Your task to perform on an android device: empty trash in google photos Image 0: 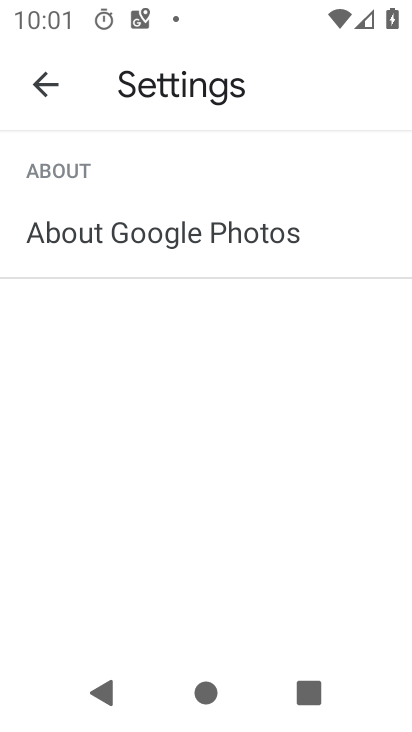
Step 0: press home button
Your task to perform on an android device: empty trash in google photos Image 1: 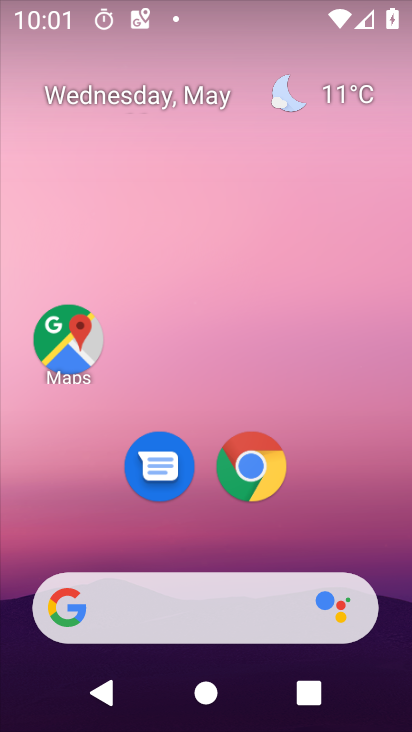
Step 1: drag from (233, 493) to (230, 141)
Your task to perform on an android device: empty trash in google photos Image 2: 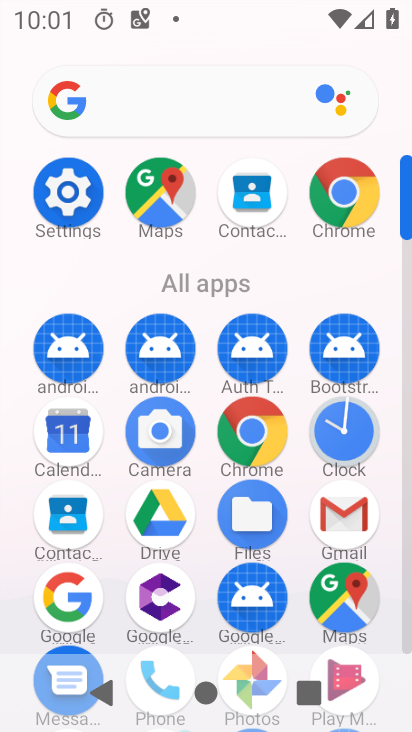
Step 2: drag from (292, 623) to (295, 278)
Your task to perform on an android device: empty trash in google photos Image 3: 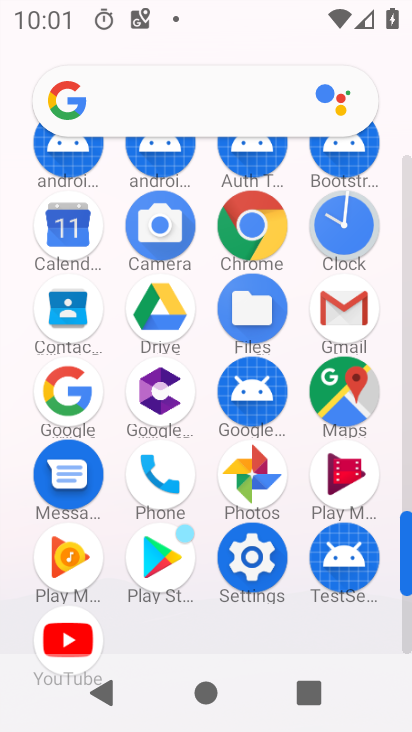
Step 3: click (266, 476)
Your task to perform on an android device: empty trash in google photos Image 4: 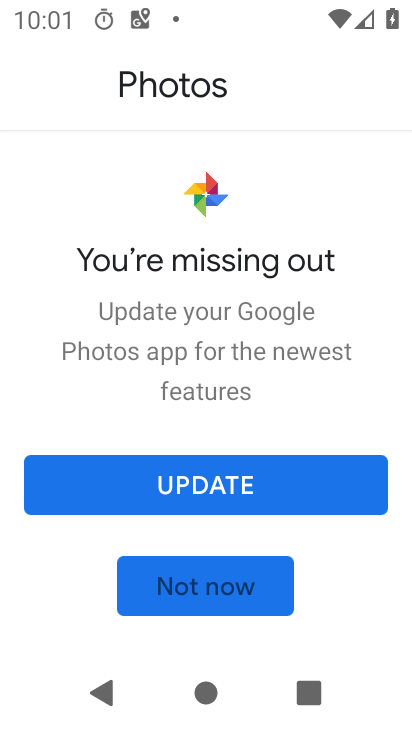
Step 4: click (199, 590)
Your task to perform on an android device: empty trash in google photos Image 5: 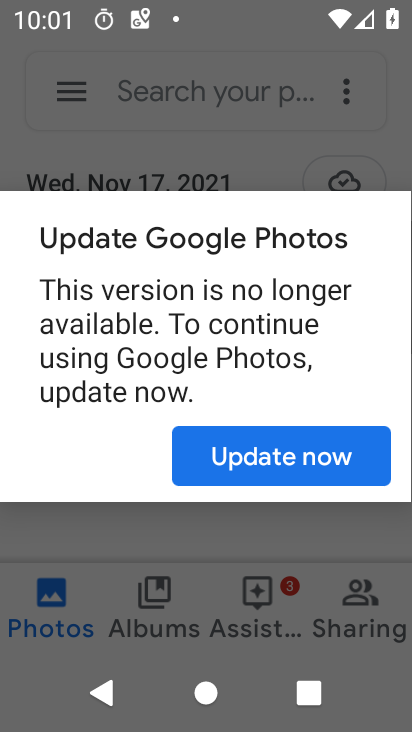
Step 5: click (150, 552)
Your task to perform on an android device: empty trash in google photos Image 6: 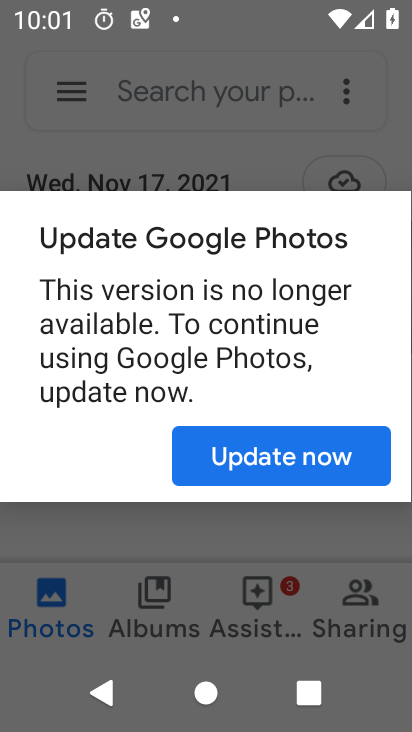
Step 6: click (239, 475)
Your task to perform on an android device: empty trash in google photos Image 7: 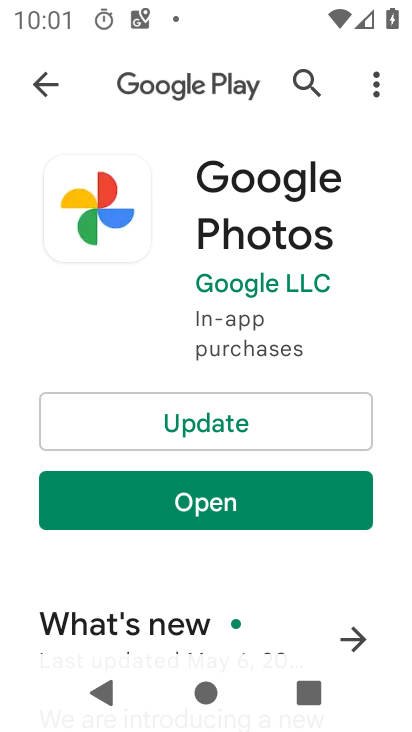
Step 7: click (225, 436)
Your task to perform on an android device: empty trash in google photos Image 8: 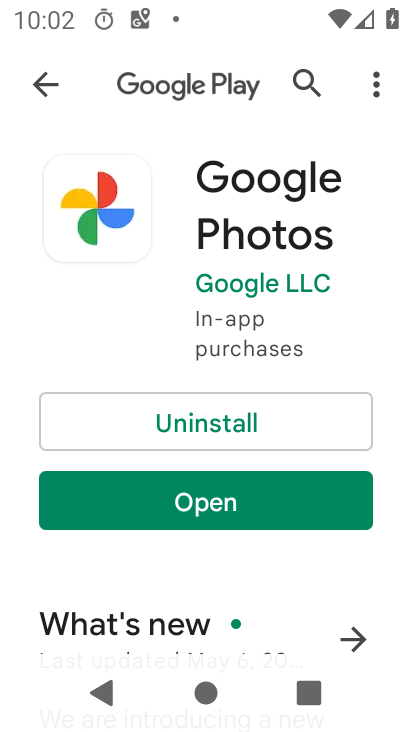
Step 8: click (164, 531)
Your task to perform on an android device: empty trash in google photos Image 9: 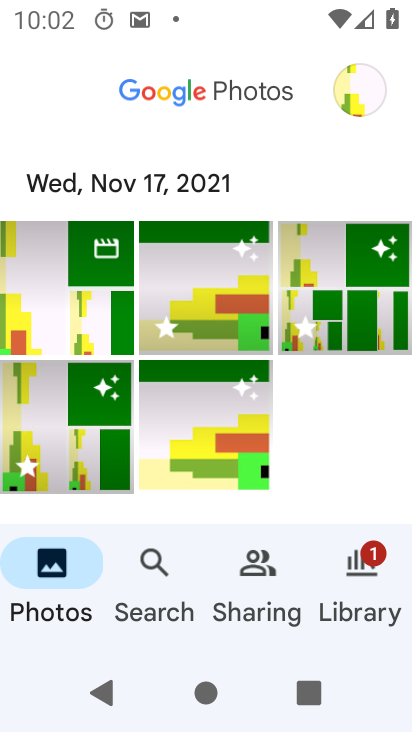
Step 9: click (33, 611)
Your task to perform on an android device: empty trash in google photos Image 10: 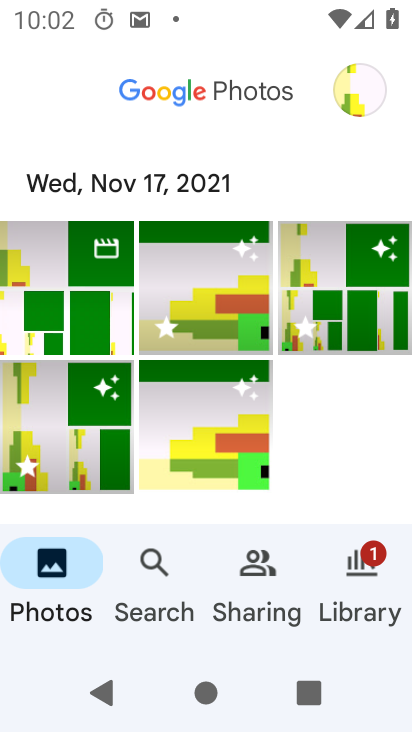
Step 10: click (352, 94)
Your task to perform on an android device: empty trash in google photos Image 11: 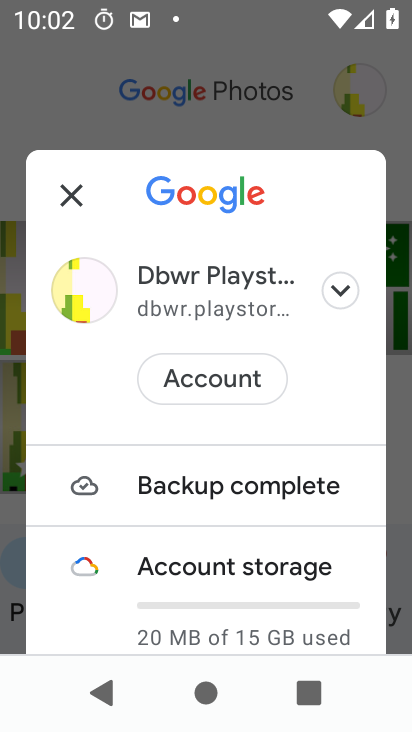
Step 11: drag from (251, 562) to (247, 269)
Your task to perform on an android device: empty trash in google photos Image 12: 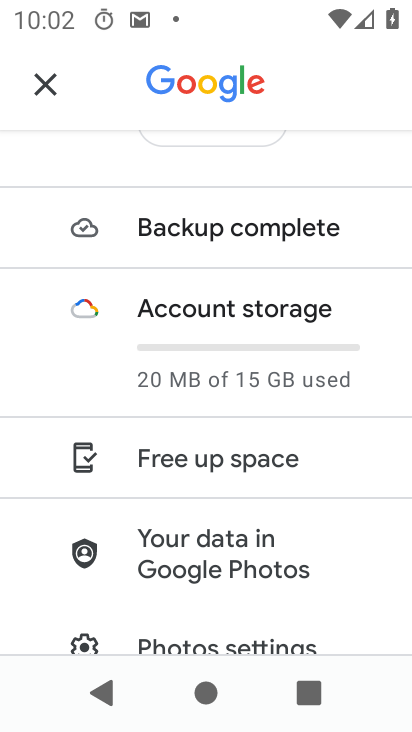
Step 12: drag from (239, 580) to (262, 277)
Your task to perform on an android device: empty trash in google photos Image 13: 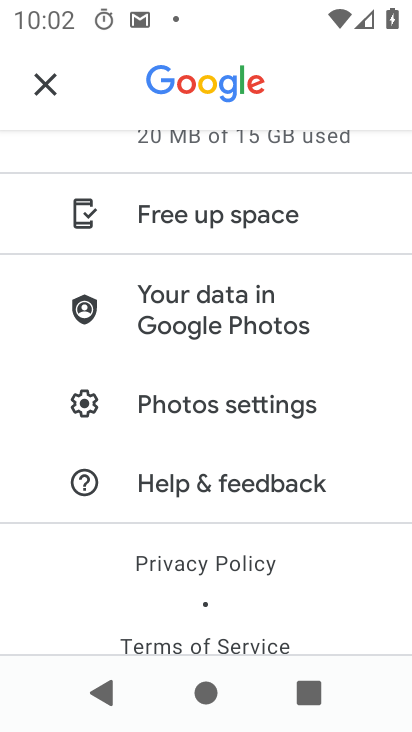
Step 13: drag from (224, 560) to (250, 307)
Your task to perform on an android device: empty trash in google photos Image 14: 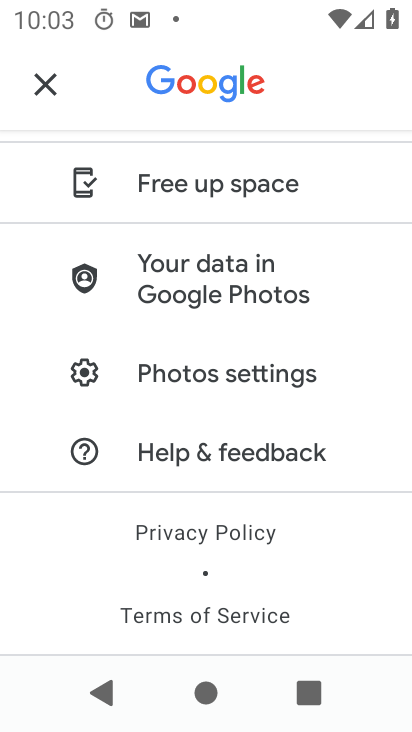
Step 14: click (211, 184)
Your task to perform on an android device: empty trash in google photos Image 15: 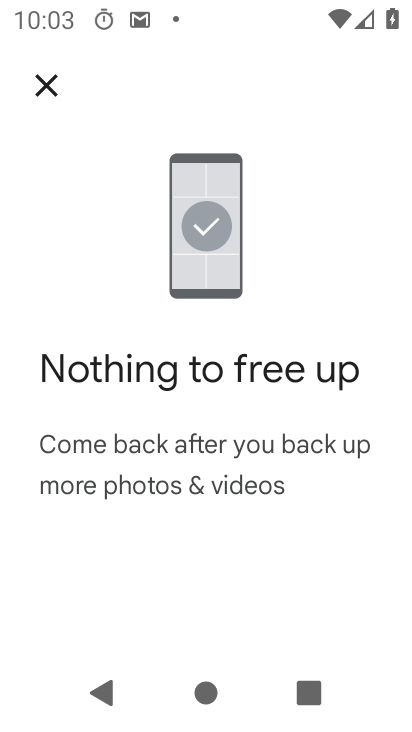
Step 15: click (41, 90)
Your task to perform on an android device: empty trash in google photos Image 16: 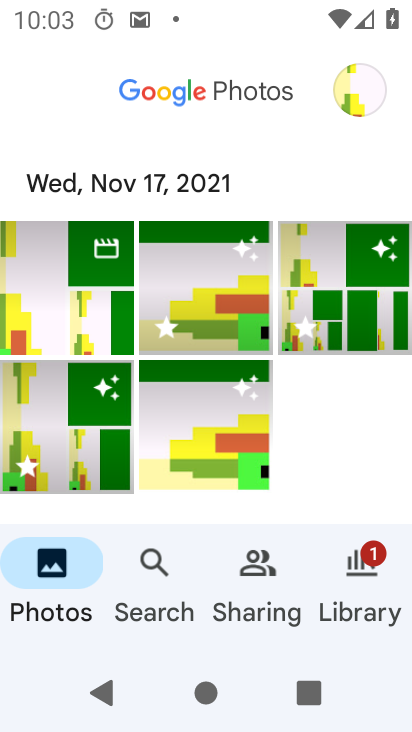
Step 16: click (366, 618)
Your task to perform on an android device: empty trash in google photos Image 17: 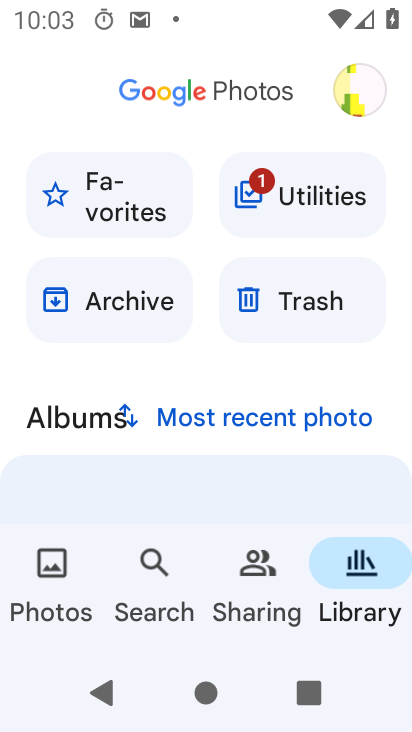
Step 17: click (293, 300)
Your task to perform on an android device: empty trash in google photos Image 18: 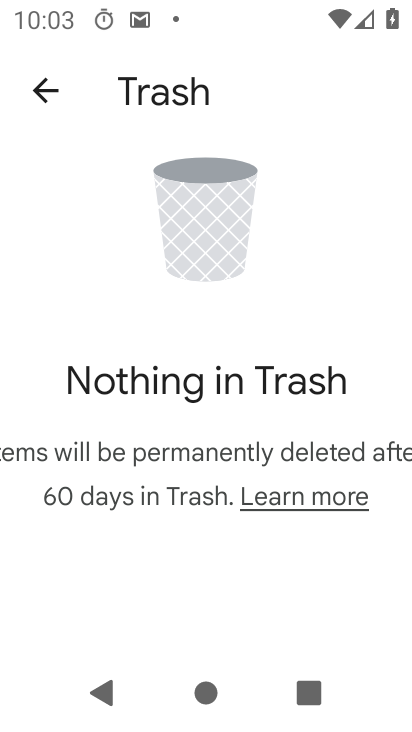
Step 18: task complete